Your task to perform on an android device: Check the settings for the Google Play Music app Image 0: 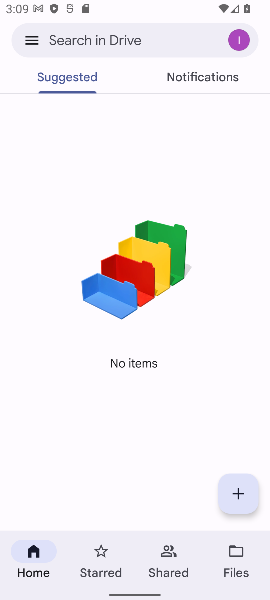
Step 0: press home button
Your task to perform on an android device: Check the settings for the Google Play Music app Image 1: 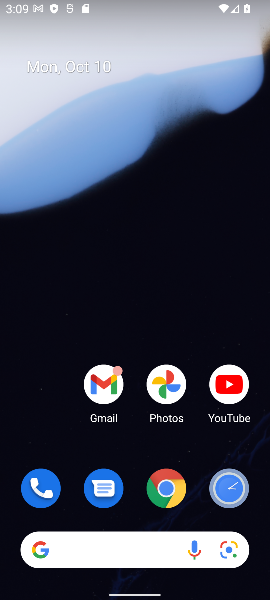
Step 1: task complete